Your task to perform on an android device: Open battery settings Image 0: 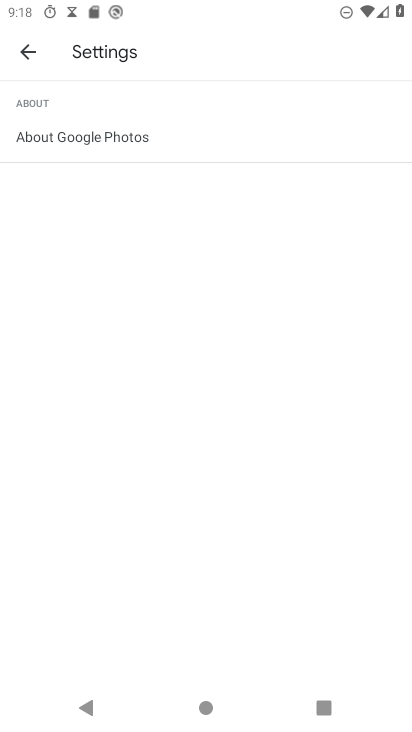
Step 0: press home button
Your task to perform on an android device: Open battery settings Image 1: 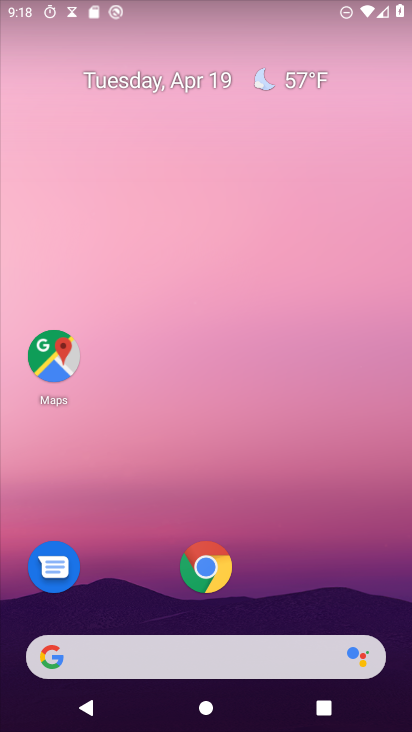
Step 1: drag from (326, 531) to (350, 211)
Your task to perform on an android device: Open battery settings Image 2: 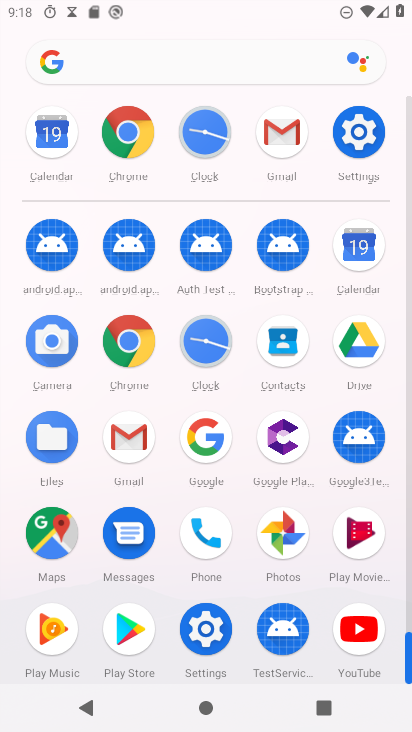
Step 2: click (367, 135)
Your task to perform on an android device: Open battery settings Image 3: 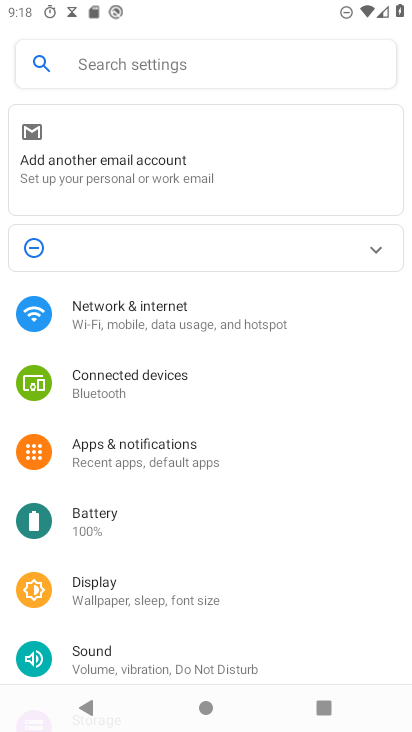
Step 3: click (80, 514)
Your task to perform on an android device: Open battery settings Image 4: 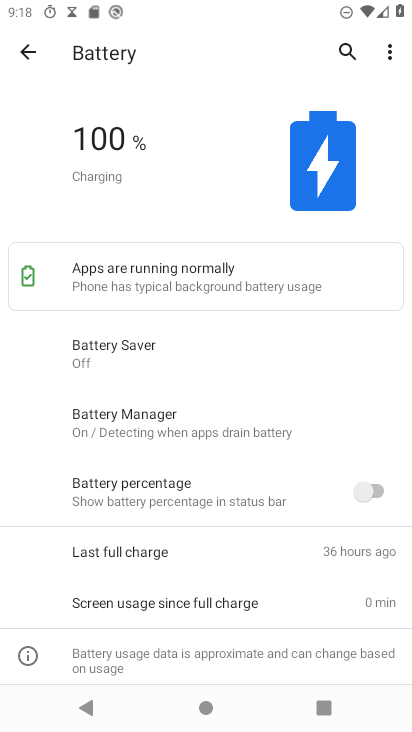
Step 4: task complete